Your task to perform on an android device: Is it going to rain tomorrow? Image 0: 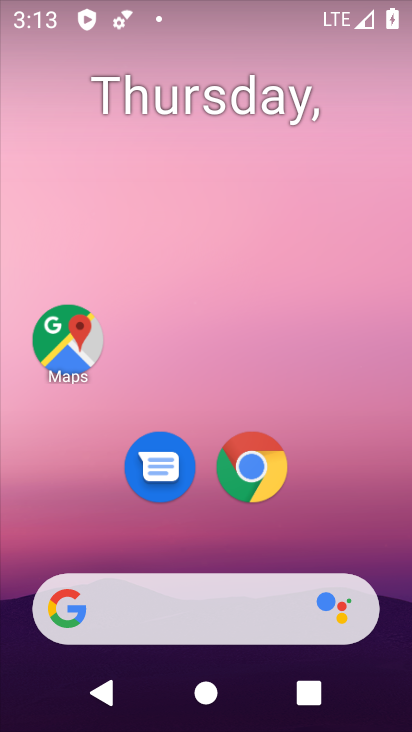
Step 0: drag from (213, 592) to (184, 69)
Your task to perform on an android device: Is it going to rain tomorrow? Image 1: 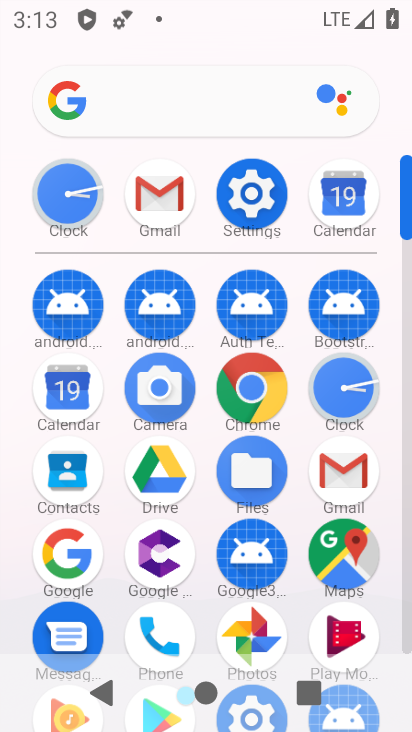
Step 1: click (77, 547)
Your task to perform on an android device: Is it going to rain tomorrow? Image 2: 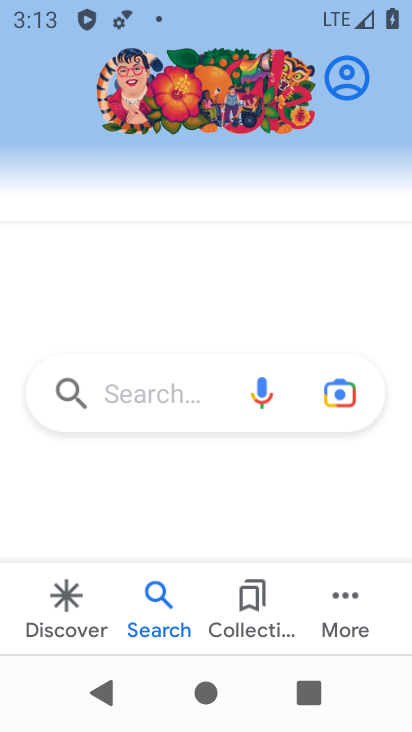
Step 2: click (54, 613)
Your task to perform on an android device: Is it going to rain tomorrow? Image 3: 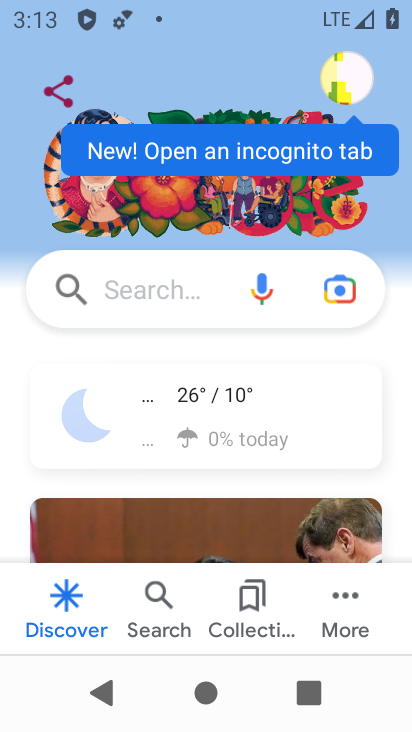
Step 3: click (109, 411)
Your task to perform on an android device: Is it going to rain tomorrow? Image 4: 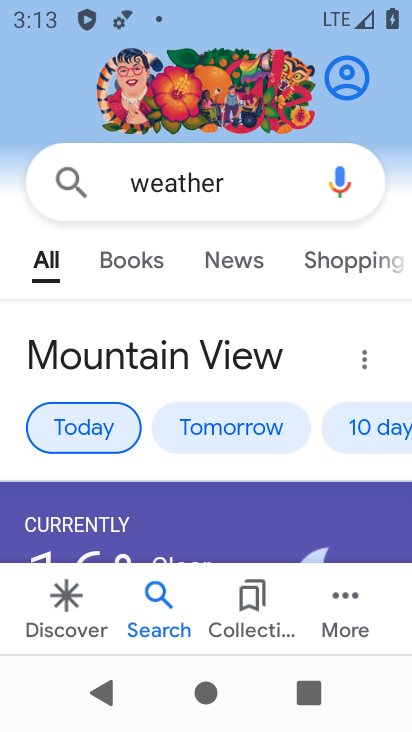
Step 4: click (208, 409)
Your task to perform on an android device: Is it going to rain tomorrow? Image 5: 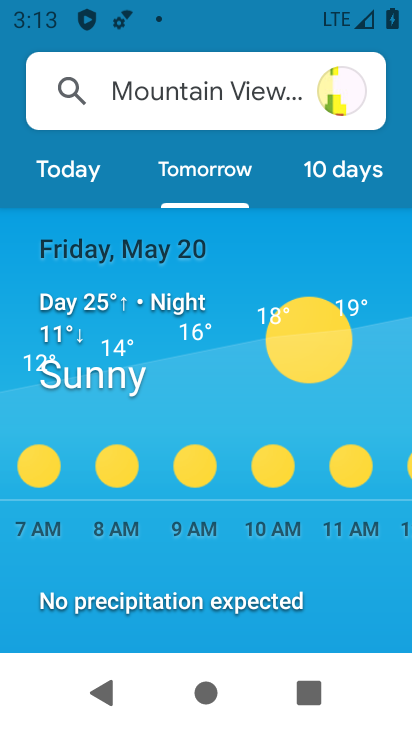
Step 5: task complete